Your task to perform on an android device: Check the settings for the Google Play Store app Image 0: 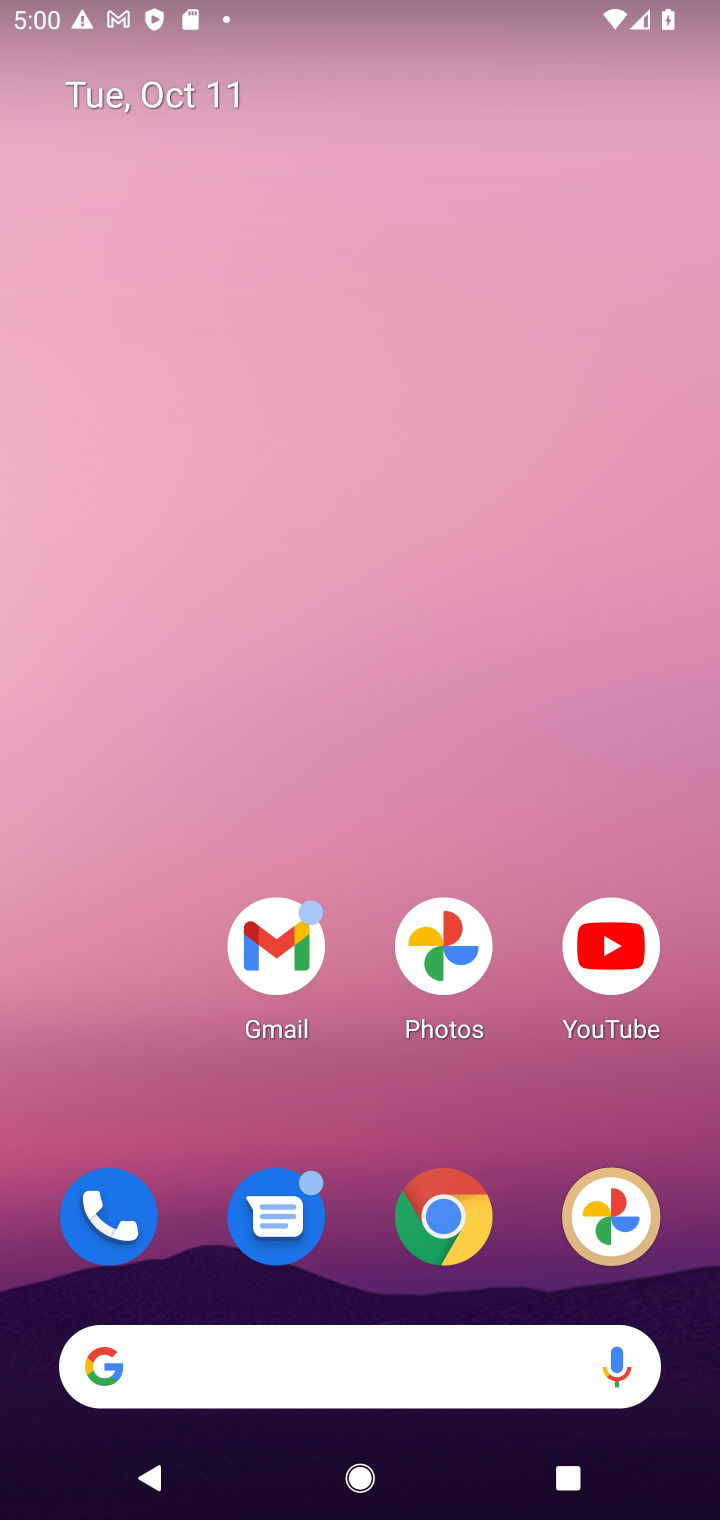
Step 0: drag from (382, 1262) to (394, 213)
Your task to perform on an android device: Check the settings for the Google Play Store app Image 1: 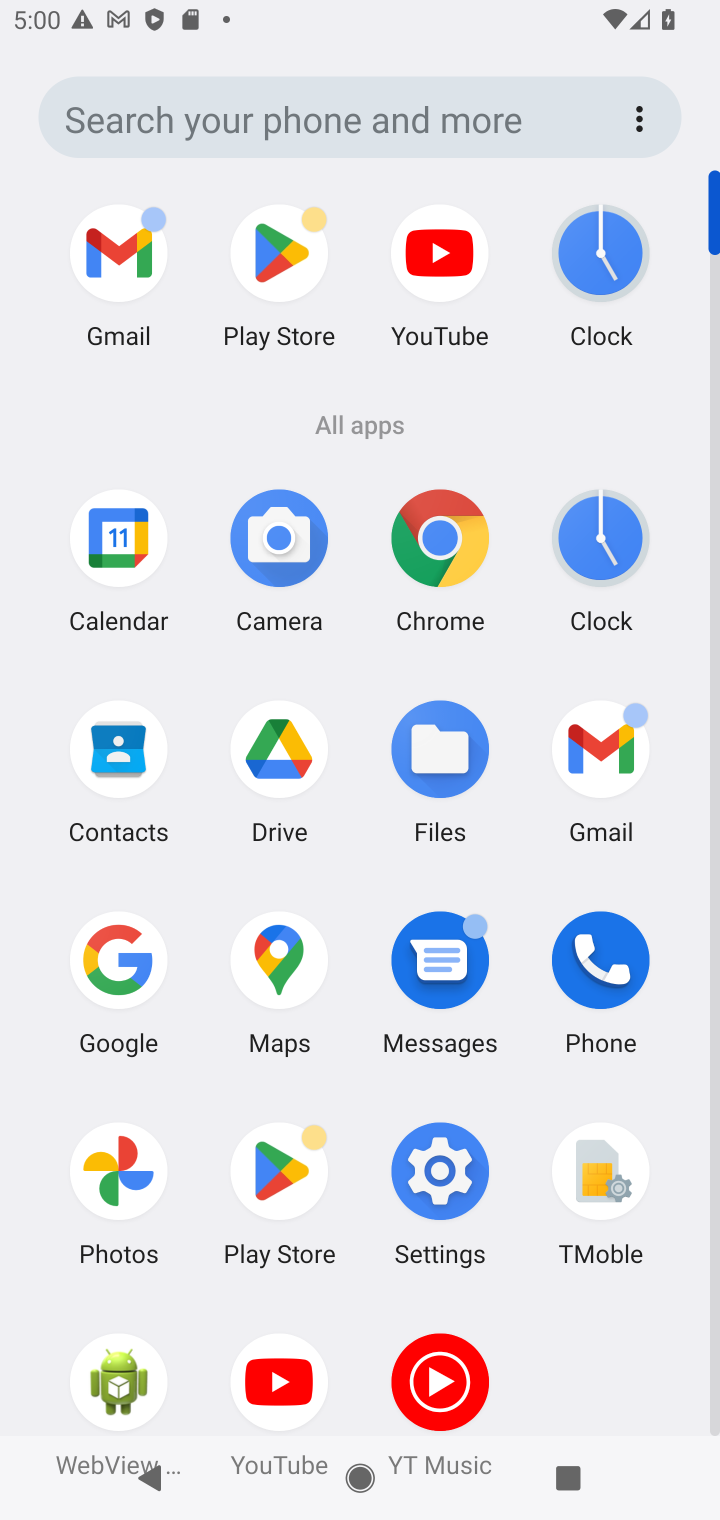
Step 1: click (275, 249)
Your task to perform on an android device: Check the settings for the Google Play Store app Image 2: 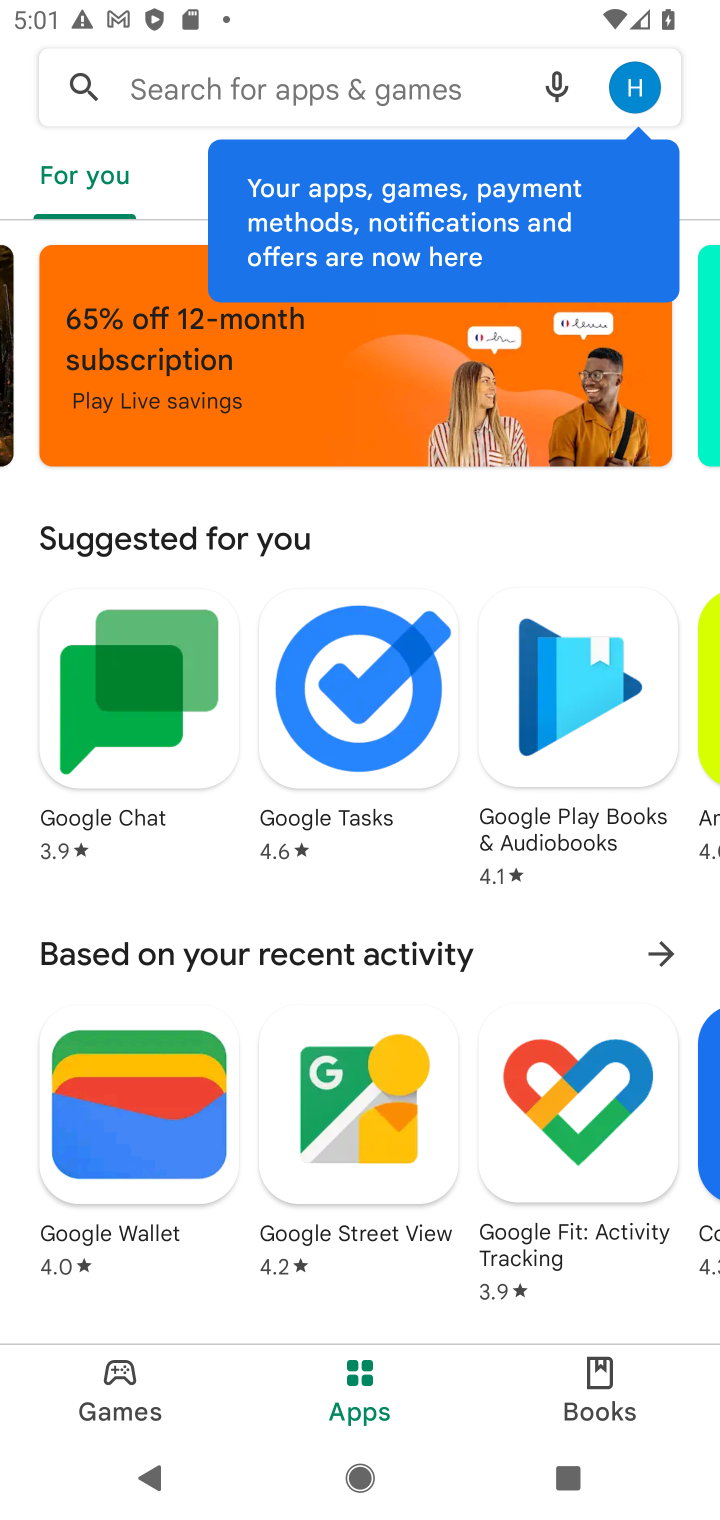
Step 2: click (636, 92)
Your task to perform on an android device: Check the settings for the Google Play Store app Image 3: 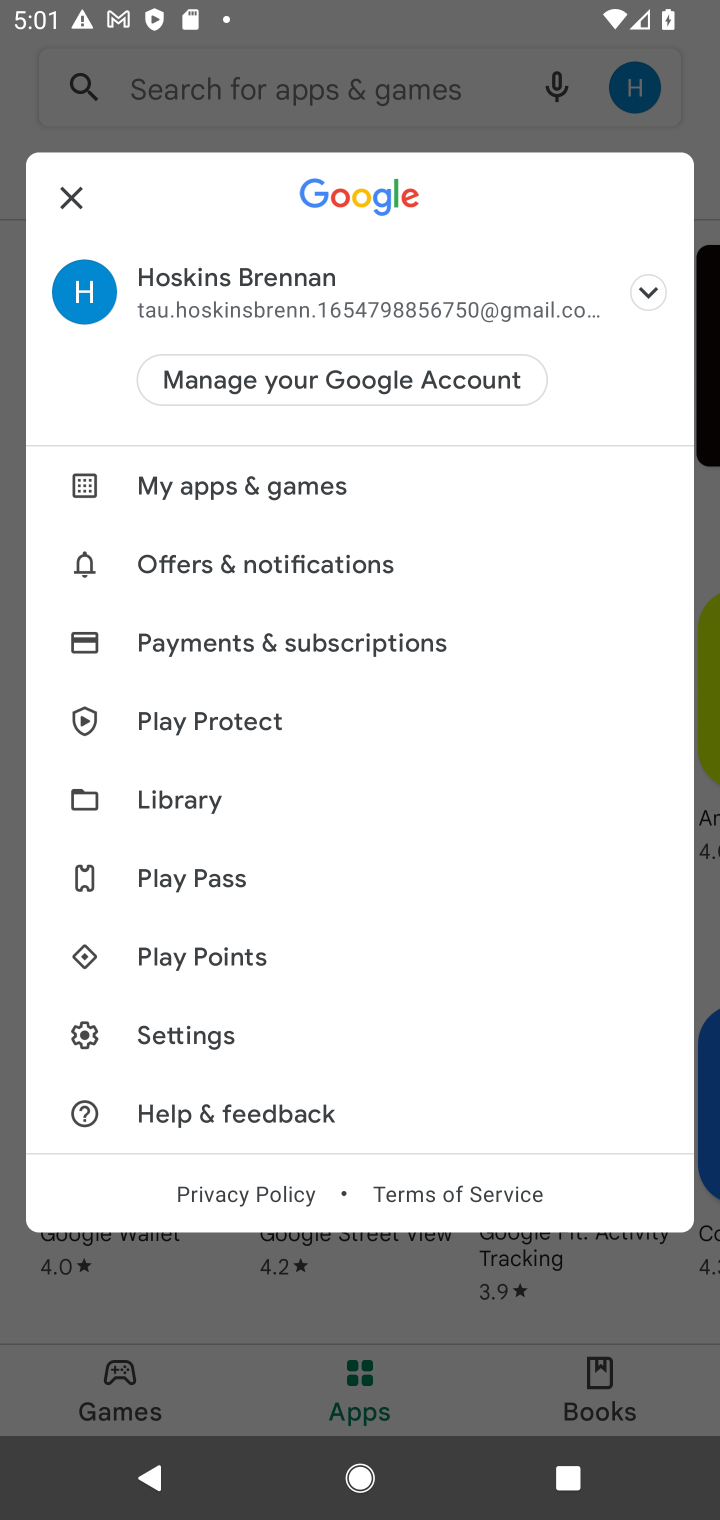
Step 3: click (165, 1029)
Your task to perform on an android device: Check the settings for the Google Play Store app Image 4: 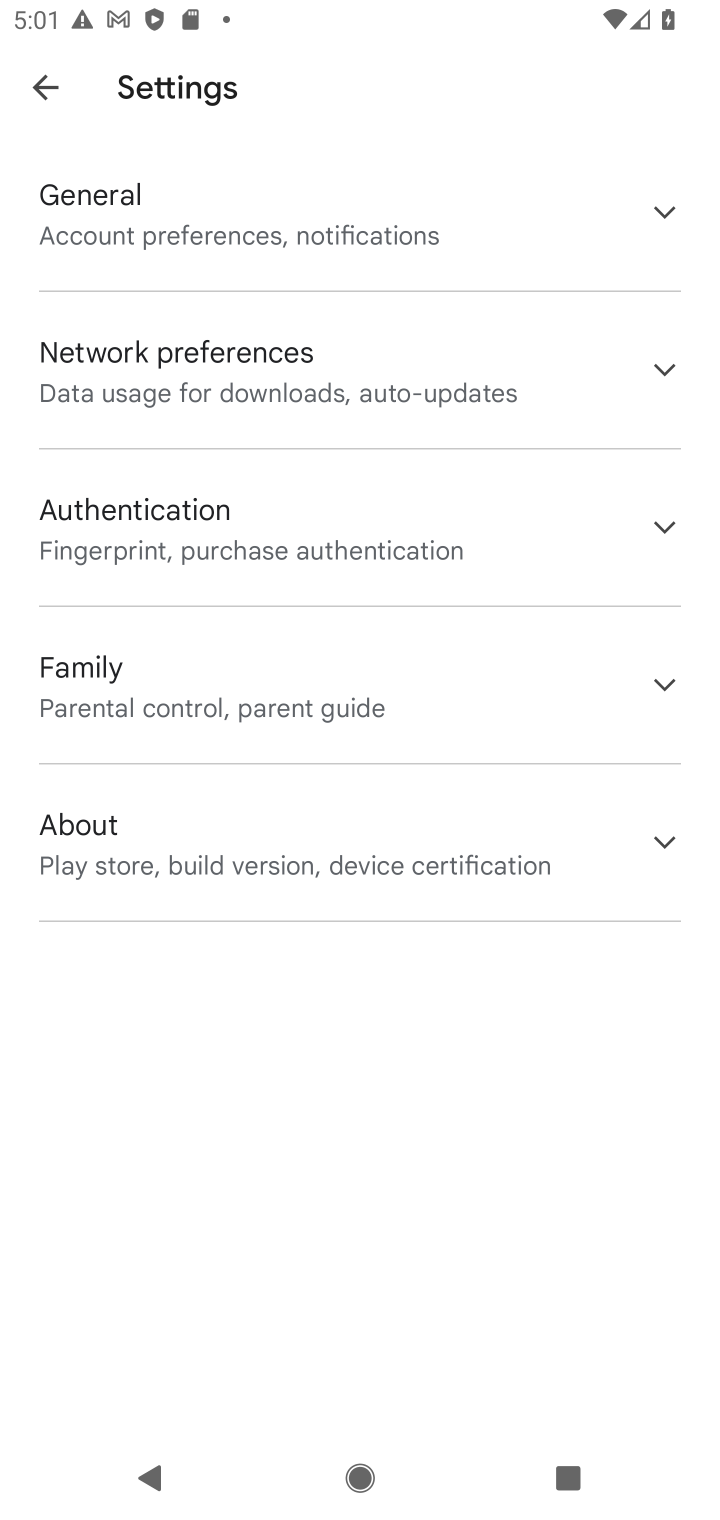
Step 4: task complete